Your task to perform on an android device: Go to sound settings Image 0: 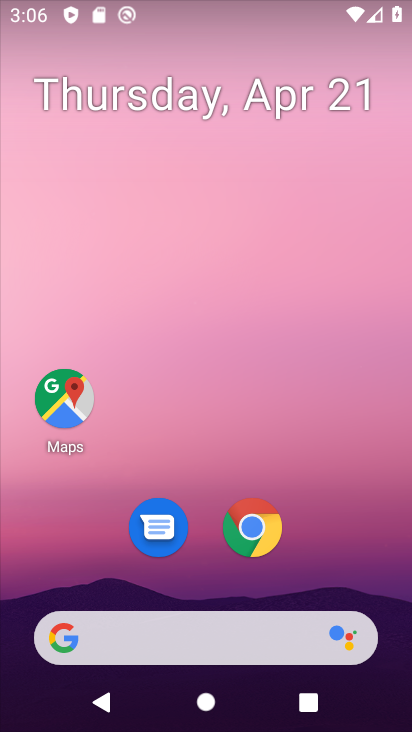
Step 0: drag from (176, 619) to (362, 222)
Your task to perform on an android device: Go to sound settings Image 1: 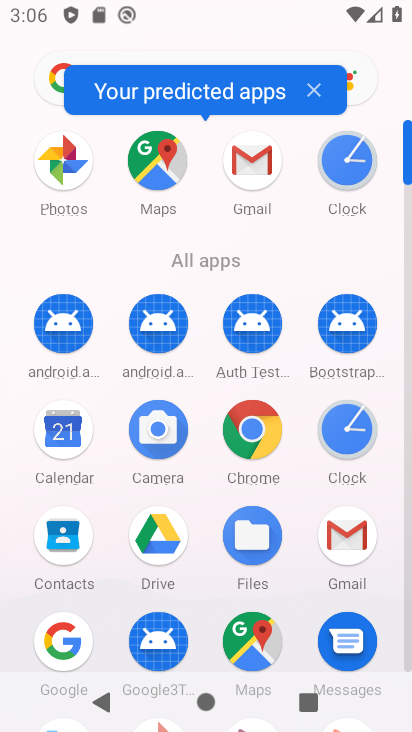
Step 1: drag from (281, 418) to (396, 188)
Your task to perform on an android device: Go to sound settings Image 2: 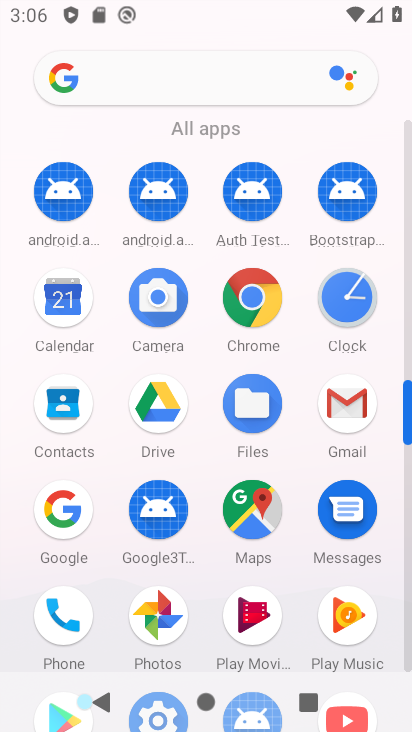
Step 2: drag from (194, 627) to (347, 341)
Your task to perform on an android device: Go to sound settings Image 3: 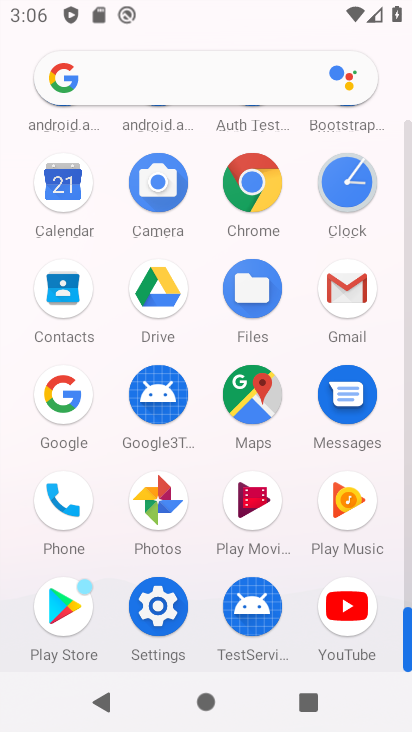
Step 3: click (151, 621)
Your task to perform on an android device: Go to sound settings Image 4: 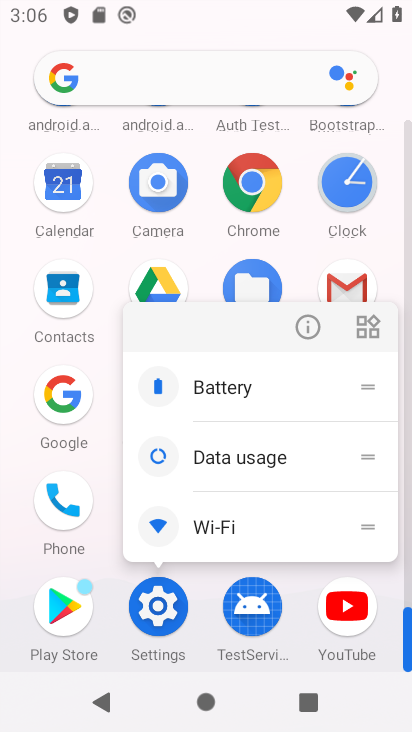
Step 4: click (149, 621)
Your task to perform on an android device: Go to sound settings Image 5: 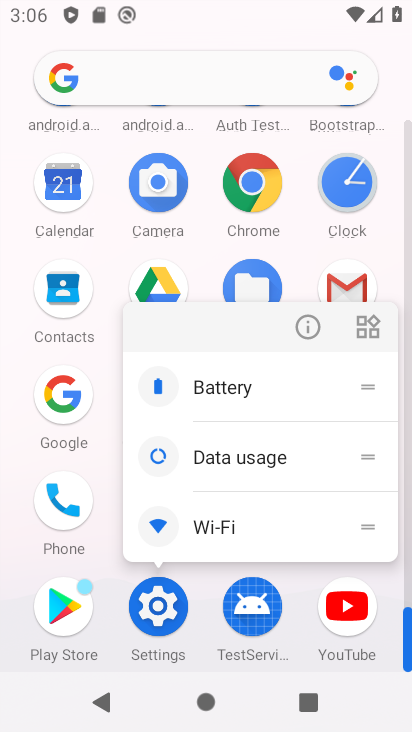
Step 5: click (170, 622)
Your task to perform on an android device: Go to sound settings Image 6: 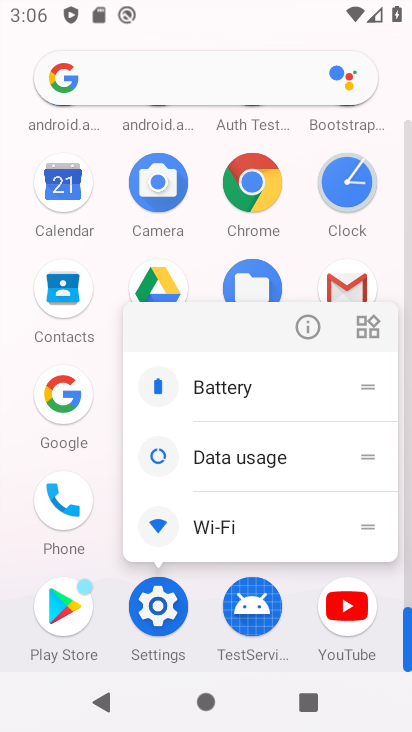
Step 6: click (168, 621)
Your task to perform on an android device: Go to sound settings Image 7: 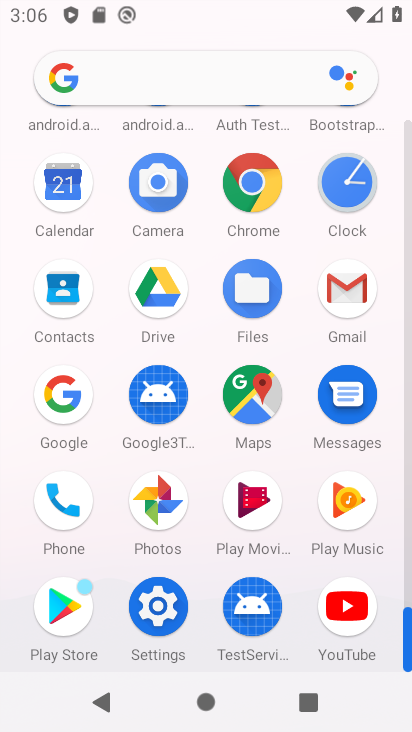
Step 7: click (169, 610)
Your task to perform on an android device: Go to sound settings Image 8: 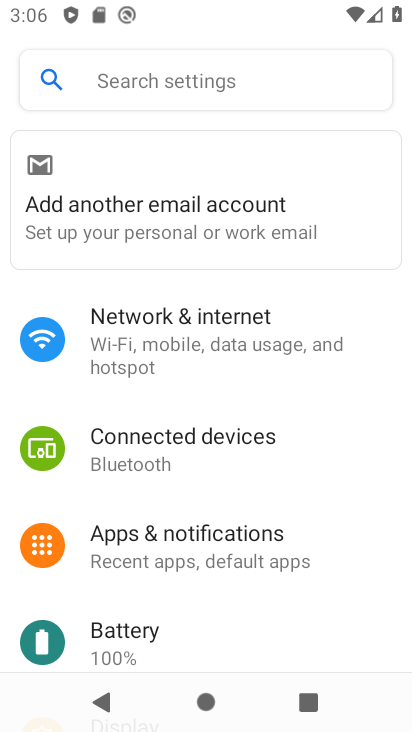
Step 8: drag from (227, 523) to (409, 237)
Your task to perform on an android device: Go to sound settings Image 9: 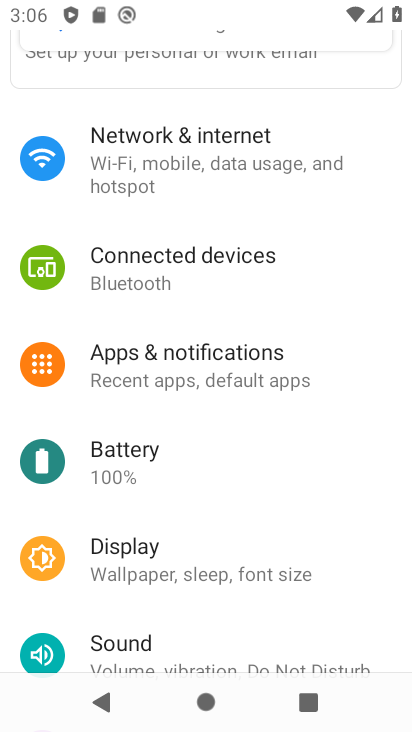
Step 9: click (171, 634)
Your task to perform on an android device: Go to sound settings Image 10: 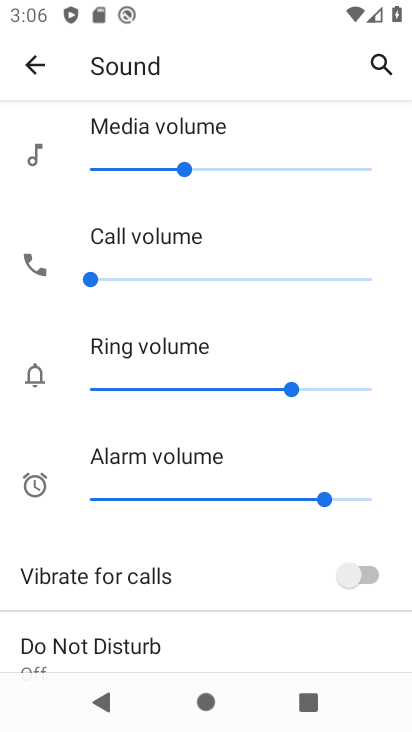
Step 10: task complete